Your task to perform on an android device: Open Chrome and go to settings Image 0: 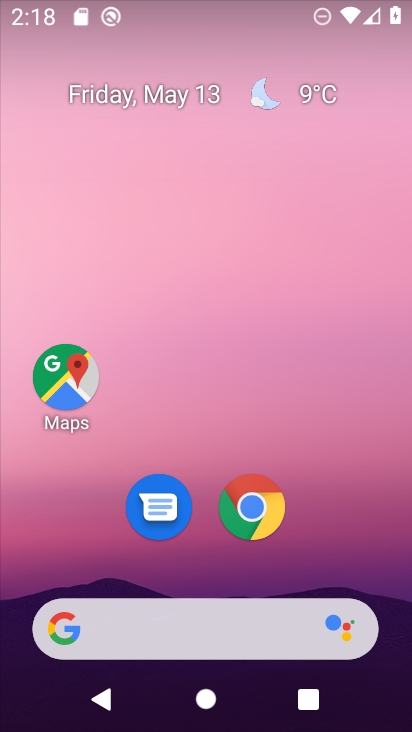
Step 0: drag from (346, 526) to (335, 39)
Your task to perform on an android device: Open Chrome and go to settings Image 1: 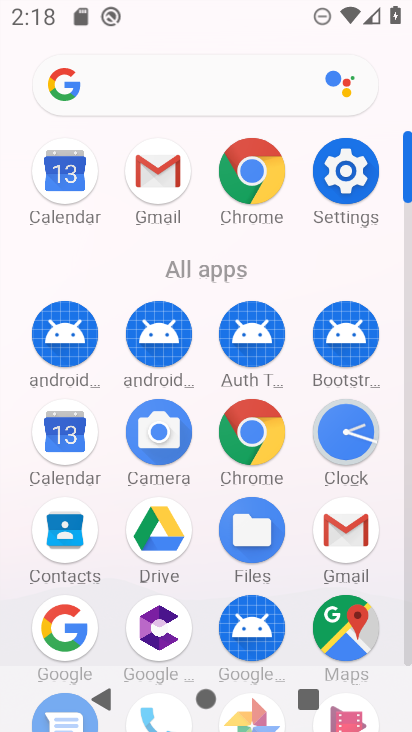
Step 1: click (255, 170)
Your task to perform on an android device: Open Chrome and go to settings Image 2: 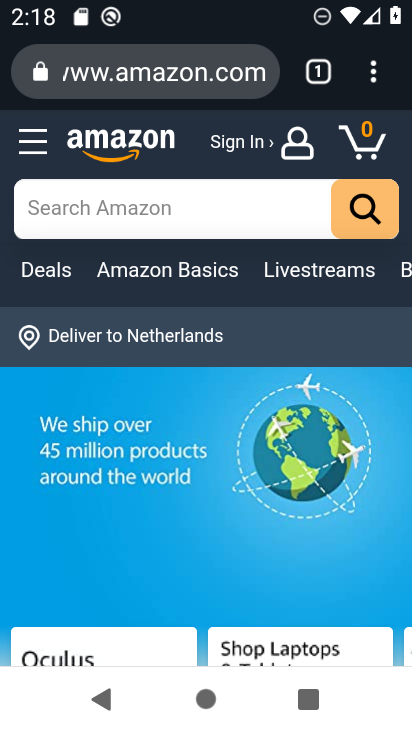
Step 2: task complete